Your task to perform on an android device: Search for vegetarian restaurants on Maps Image 0: 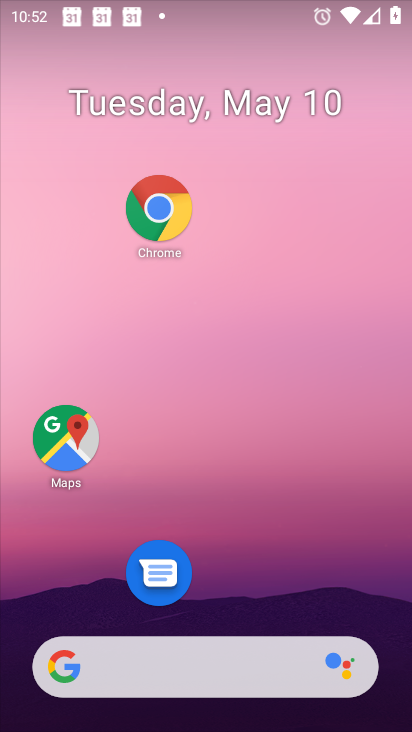
Step 0: drag from (224, 711) to (303, 238)
Your task to perform on an android device: Search for vegetarian restaurants on Maps Image 1: 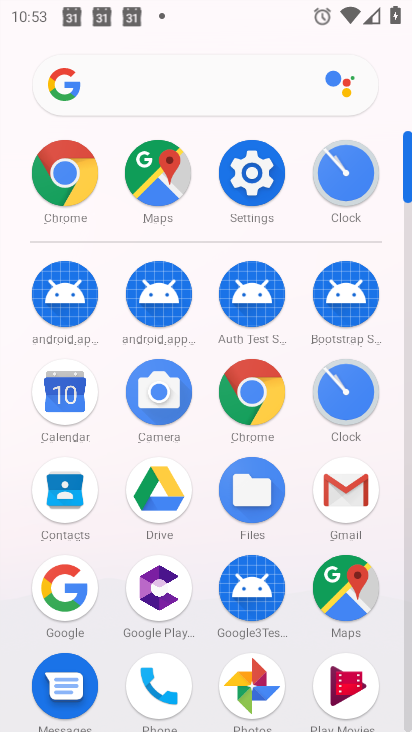
Step 1: click (164, 168)
Your task to perform on an android device: Search for vegetarian restaurants on Maps Image 2: 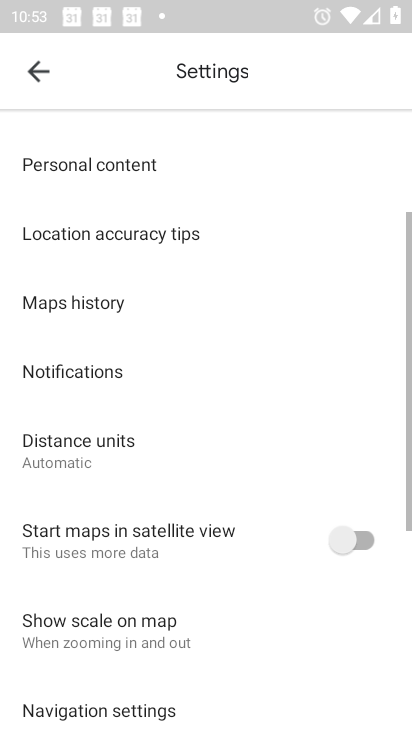
Step 2: click (31, 73)
Your task to perform on an android device: Search for vegetarian restaurants on Maps Image 3: 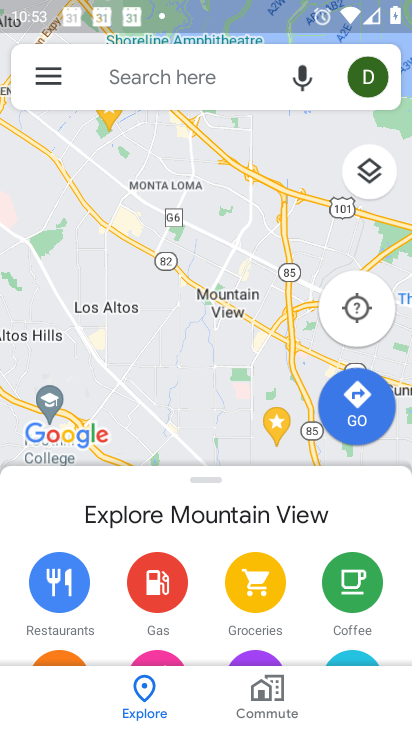
Step 3: click (173, 75)
Your task to perform on an android device: Search for vegetarian restaurants on Maps Image 4: 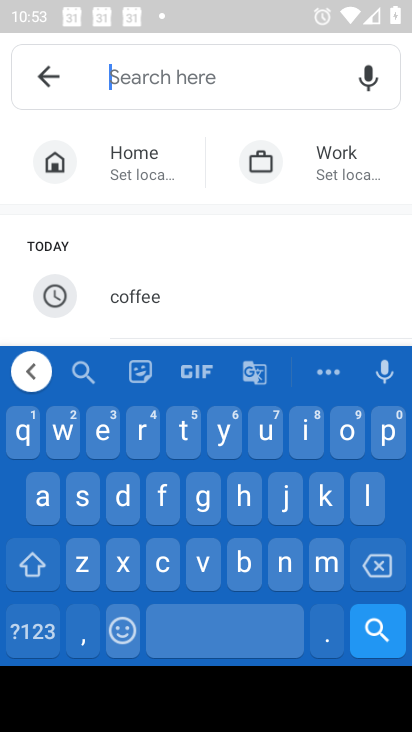
Step 4: click (206, 571)
Your task to perform on an android device: Search for vegetarian restaurants on Maps Image 5: 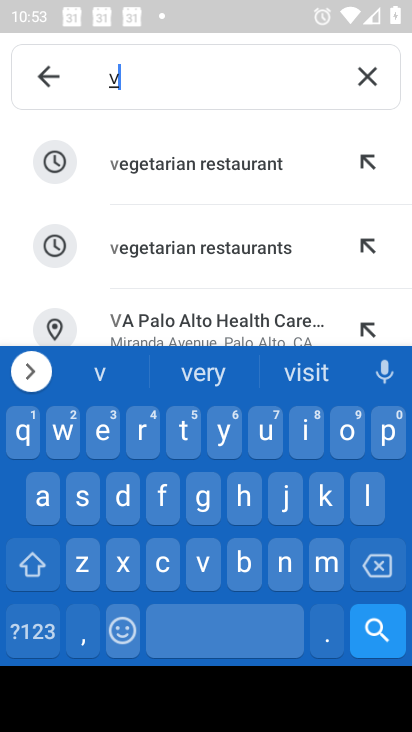
Step 5: click (205, 165)
Your task to perform on an android device: Search for vegetarian restaurants on Maps Image 6: 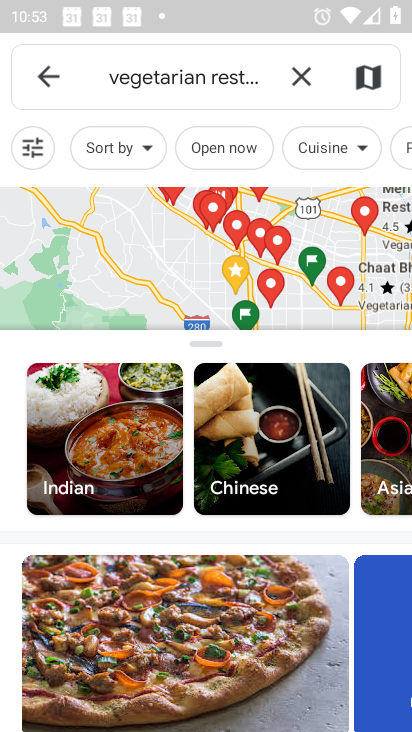
Step 6: click (160, 224)
Your task to perform on an android device: Search for vegetarian restaurants on Maps Image 7: 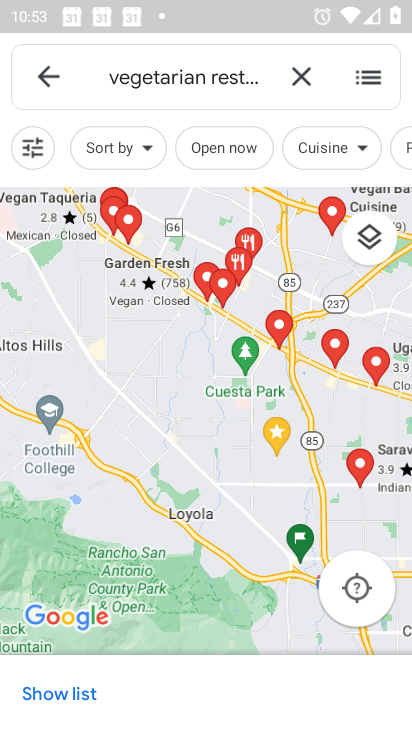
Step 7: task complete